Your task to perform on an android device: Go to Reddit.com Image 0: 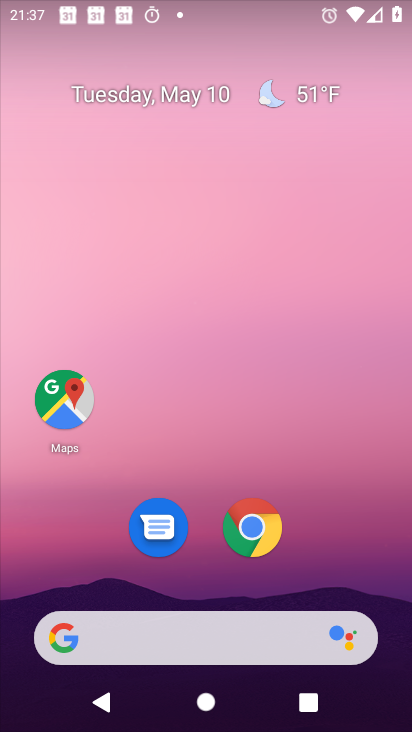
Step 0: click (267, 543)
Your task to perform on an android device: Go to Reddit.com Image 1: 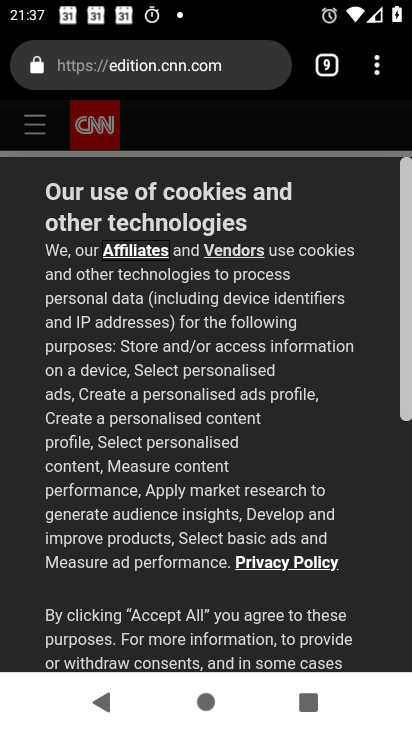
Step 1: click (325, 49)
Your task to perform on an android device: Go to Reddit.com Image 2: 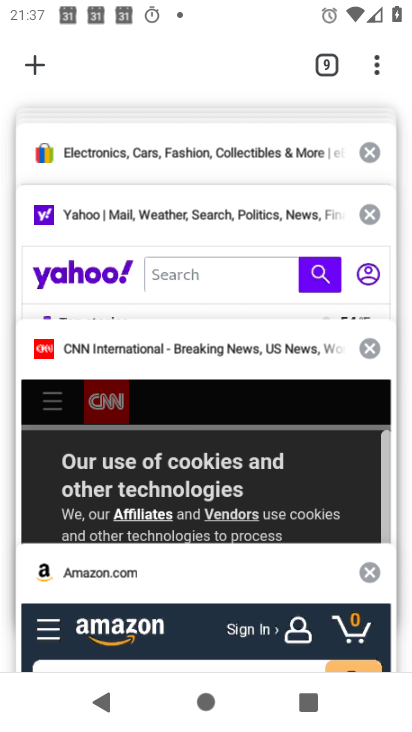
Step 2: click (34, 53)
Your task to perform on an android device: Go to Reddit.com Image 3: 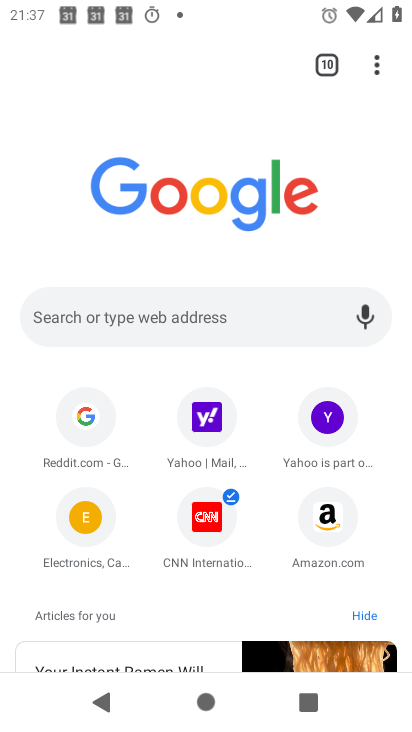
Step 3: click (86, 414)
Your task to perform on an android device: Go to Reddit.com Image 4: 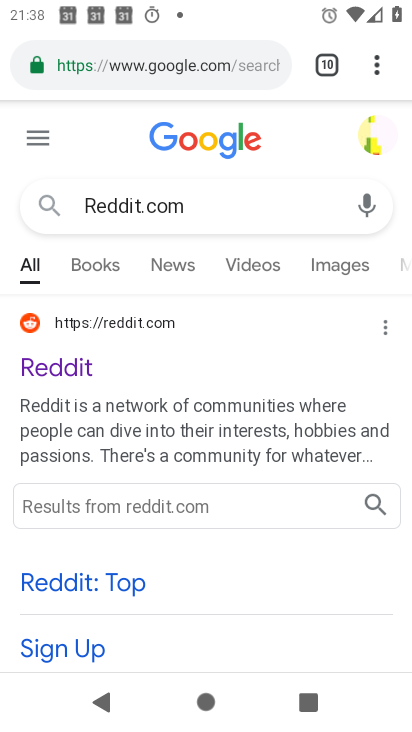
Step 4: click (66, 370)
Your task to perform on an android device: Go to Reddit.com Image 5: 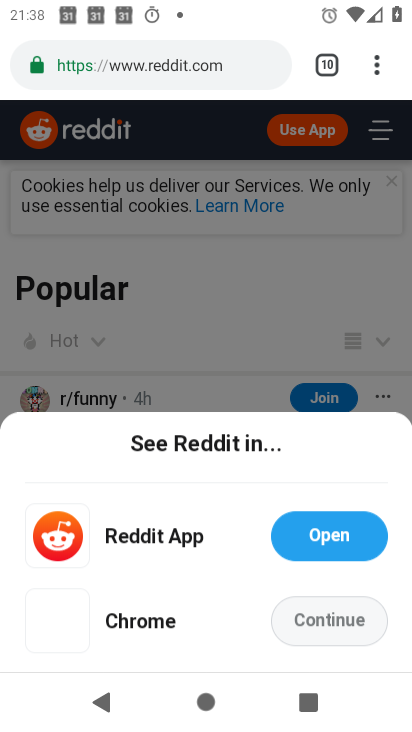
Step 5: task complete